Your task to perform on an android device: turn notification dots on Image 0: 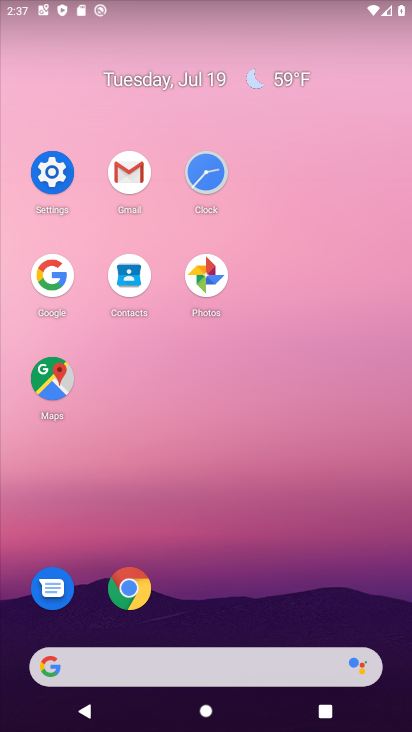
Step 0: click (57, 179)
Your task to perform on an android device: turn notification dots on Image 1: 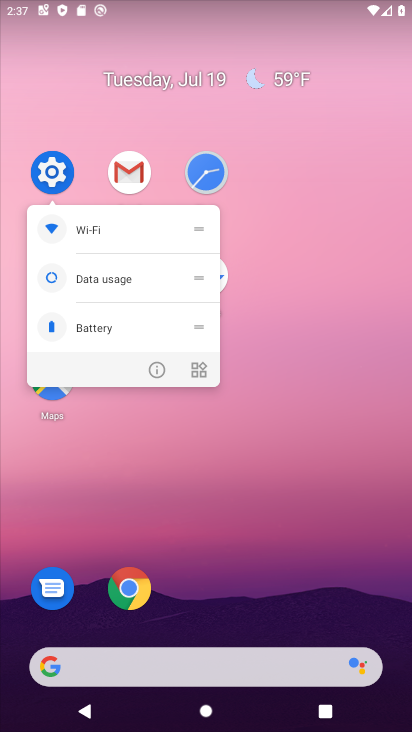
Step 1: click (42, 162)
Your task to perform on an android device: turn notification dots on Image 2: 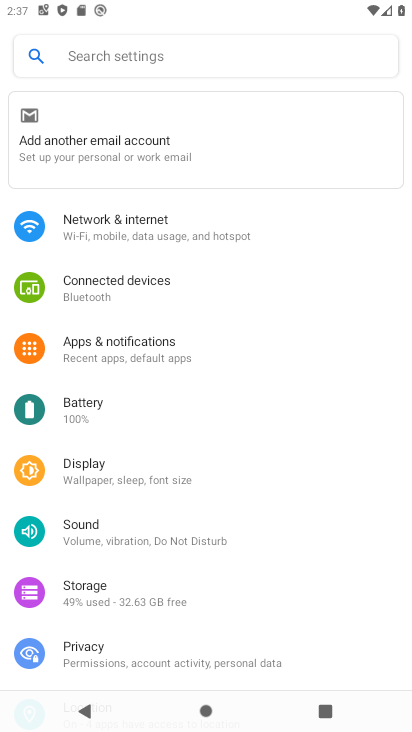
Step 2: click (186, 353)
Your task to perform on an android device: turn notification dots on Image 3: 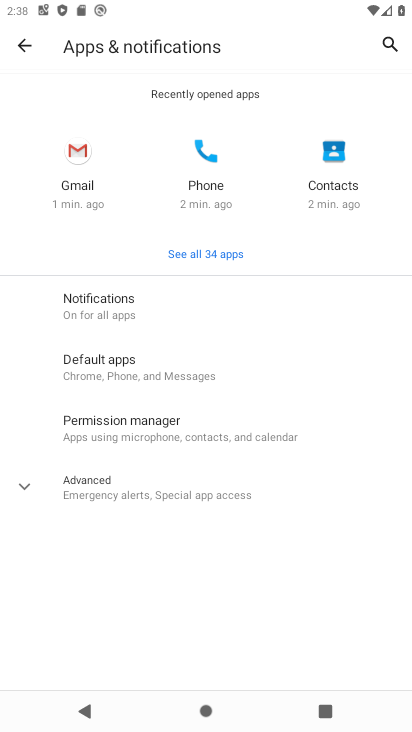
Step 3: click (61, 483)
Your task to perform on an android device: turn notification dots on Image 4: 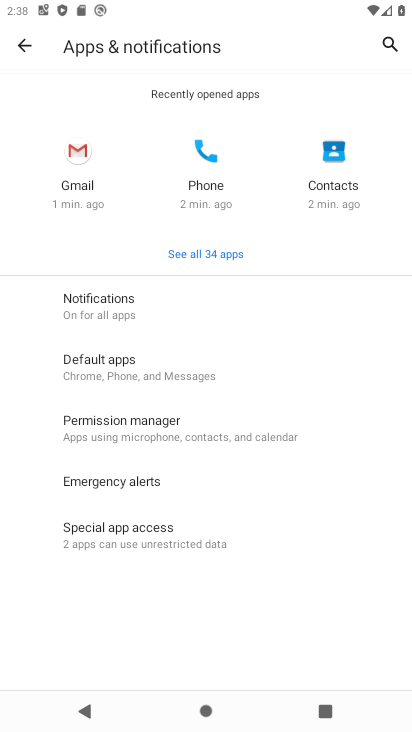
Step 4: click (174, 317)
Your task to perform on an android device: turn notification dots on Image 5: 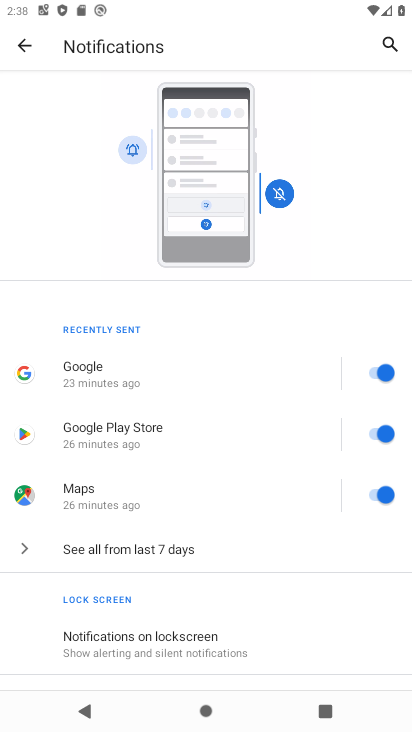
Step 5: drag from (259, 581) to (316, 225)
Your task to perform on an android device: turn notification dots on Image 6: 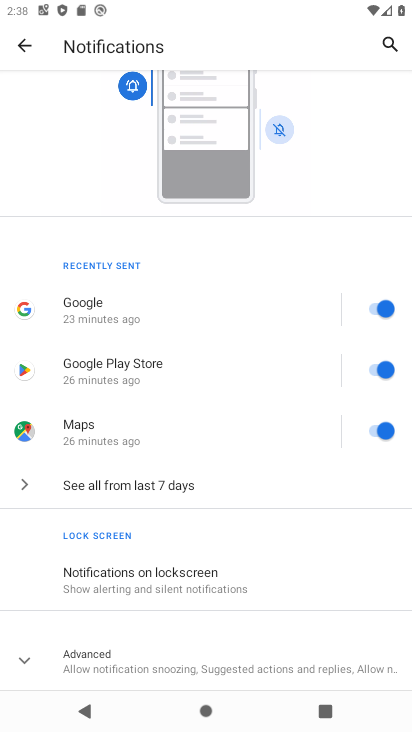
Step 6: click (165, 692)
Your task to perform on an android device: turn notification dots on Image 7: 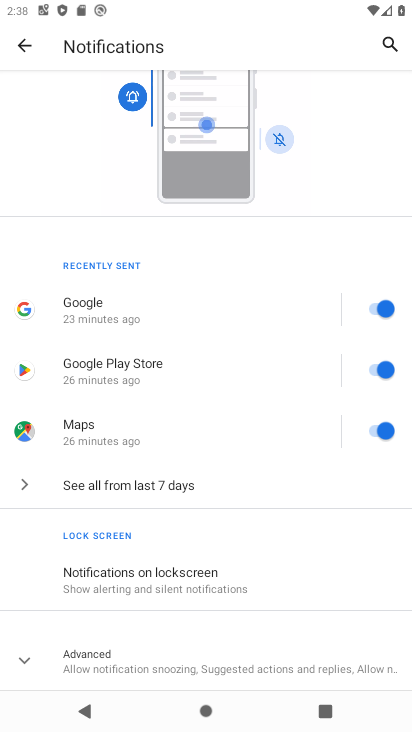
Step 7: click (167, 672)
Your task to perform on an android device: turn notification dots on Image 8: 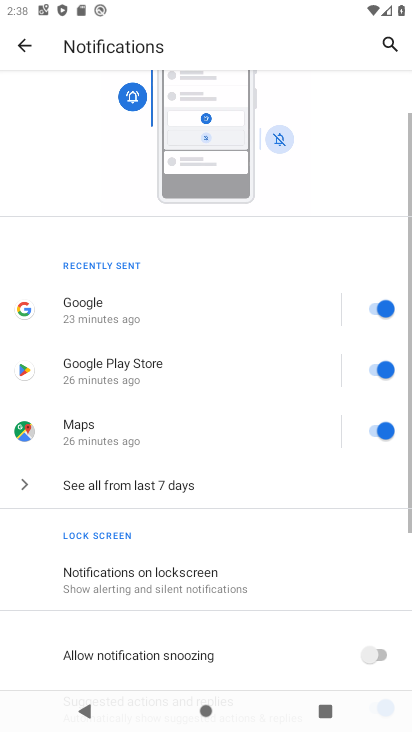
Step 8: task complete